Your task to perform on an android device: View the shopping cart on bestbuy.com. Search for "logitech g910" on bestbuy.com, select the first entry, and add it to the cart. Image 0: 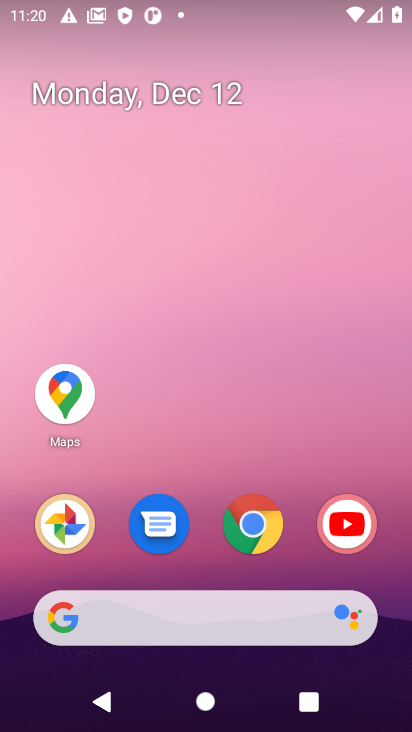
Step 0: click (254, 530)
Your task to perform on an android device: View the shopping cart on bestbuy.com. Search for "logitech g910" on bestbuy.com, select the first entry, and add it to the cart. Image 1: 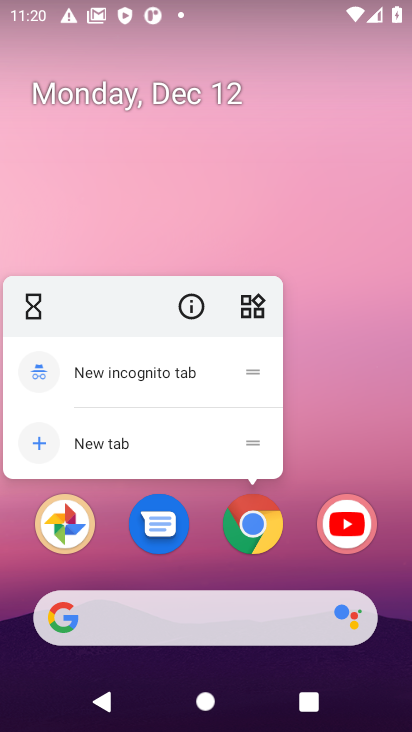
Step 1: click (254, 530)
Your task to perform on an android device: View the shopping cart on bestbuy.com. Search for "logitech g910" on bestbuy.com, select the first entry, and add it to the cart. Image 2: 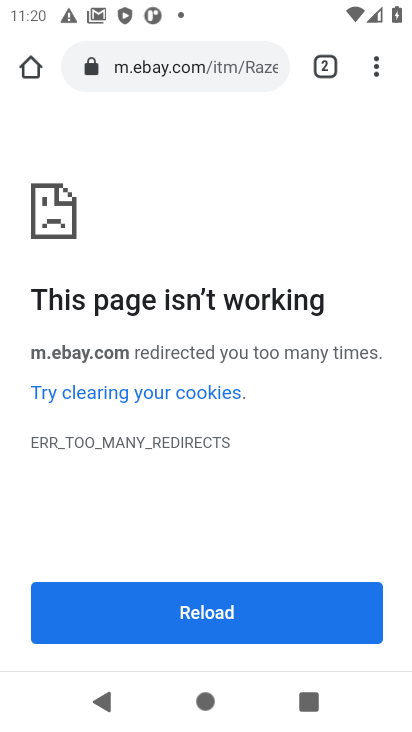
Step 2: click (185, 68)
Your task to perform on an android device: View the shopping cart on bestbuy.com. Search for "logitech g910" on bestbuy.com, select the first entry, and add it to the cart. Image 3: 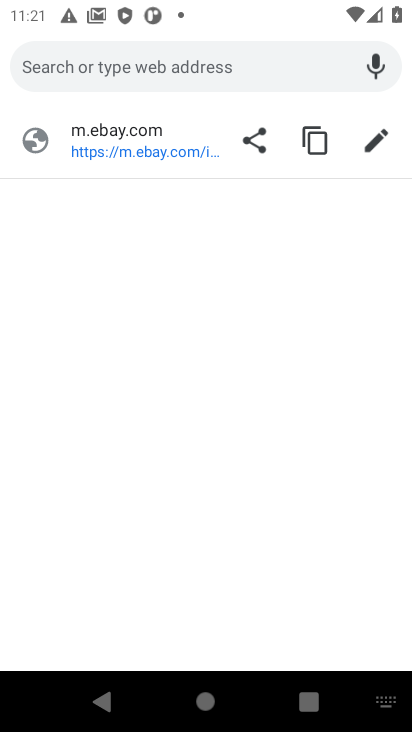
Step 3: type "bestbuy.com"
Your task to perform on an android device: View the shopping cart on bestbuy.com. Search for "logitech g910" on bestbuy.com, select the first entry, and add it to the cart. Image 4: 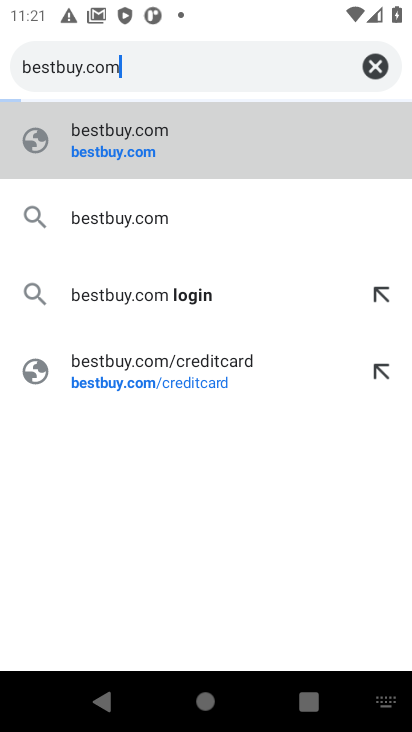
Step 4: click (104, 157)
Your task to perform on an android device: View the shopping cart on bestbuy.com. Search for "logitech g910" on bestbuy.com, select the first entry, and add it to the cart. Image 5: 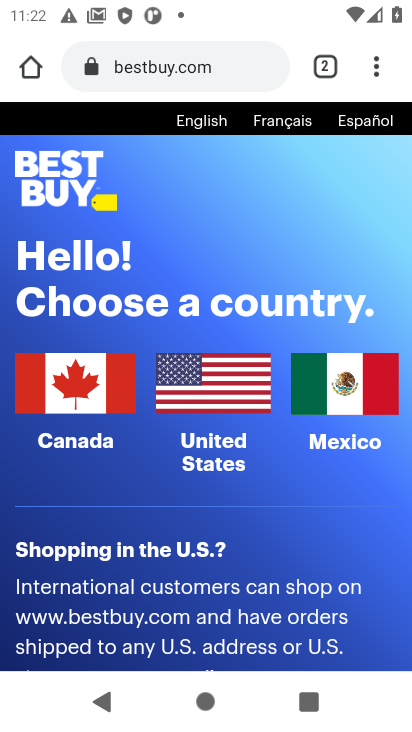
Step 5: click (210, 382)
Your task to perform on an android device: View the shopping cart on bestbuy.com. Search for "logitech g910" on bestbuy.com, select the first entry, and add it to the cart. Image 6: 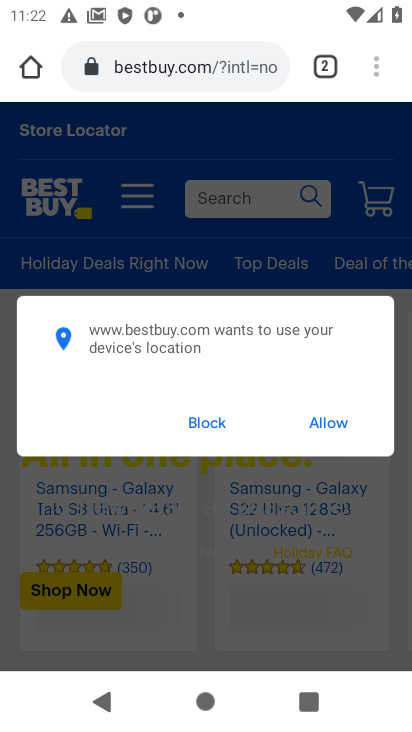
Step 6: click (206, 421)
Your task to perform on an android device: View the shopping cart on bestbuy.com. Search for "logitech g910" on bestbuy.com, select the first entry, and add it to the cart. Image 7: 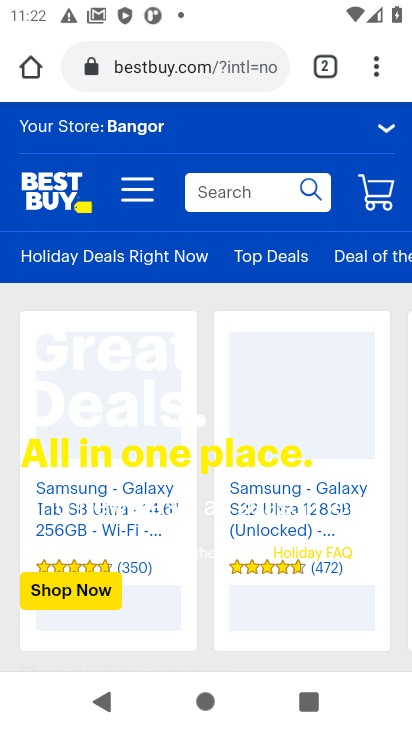
Step 7: click (381, 202)
Your task to perform on an android device: View the shopping cart on bestbuy.com. Search for "logitech g910" on bestbuy.com, select the first entry, and add it to the cart. Image 8: 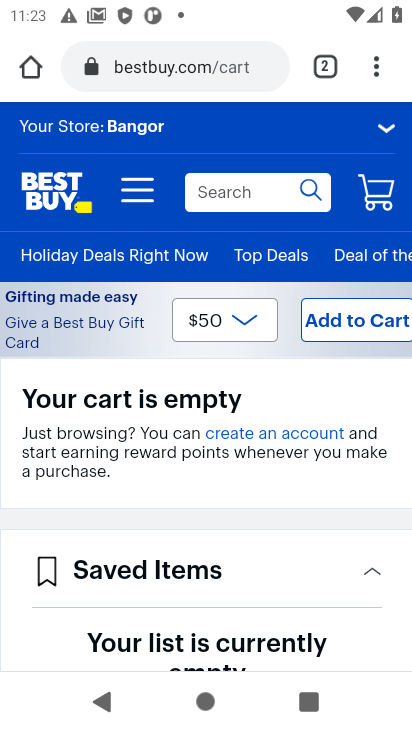
Step 8: click (202, 191)
Your task to perform on an android device: View the shopping cart on bestbuy.com. Search for "logitech g910" on bestbuy.com, select the first entry, and add it to the cart. Image 9: 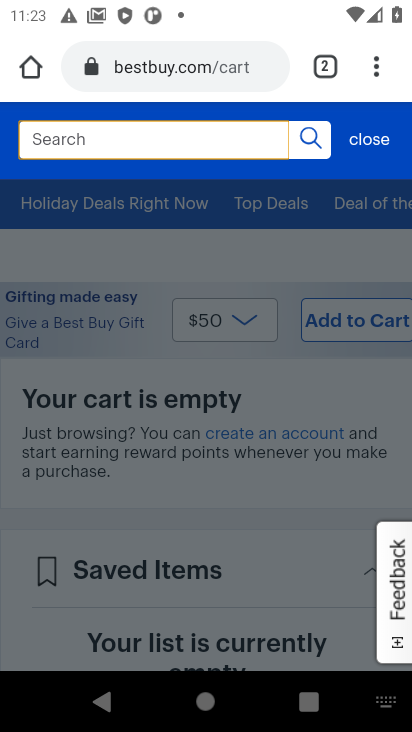
Step 9: type "logitech g910"
Your task to perform on an android device: View the shopping cart on bestbuy.com. Search for "logitech g910" on bestbuy.com, select the first entry, and add it to the cart. Image 10: 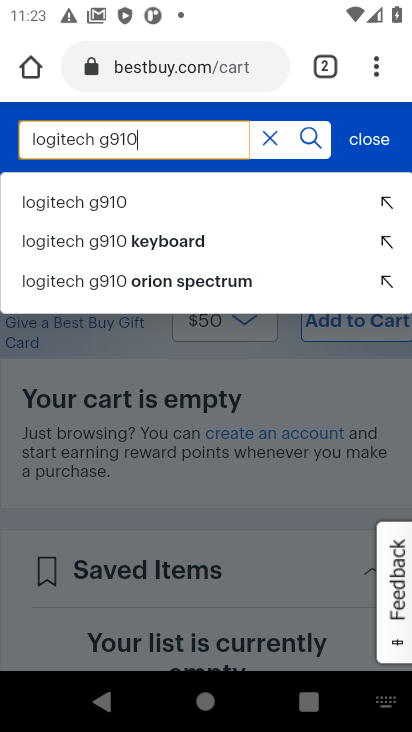
Step 10: click (68, 204)
Your task to perform on an android device: View the shopping cart on bestbuy.com. Search for "logitech g910" on bestbuy.com, select the first entry, and add it to the cart. Image 11: 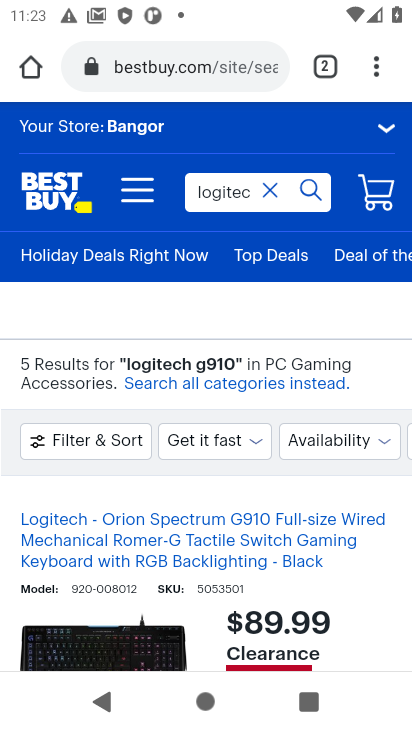
Step 11: task complete